Your task to perform on an android device: Is it going to rain tomorrow? Image 0: 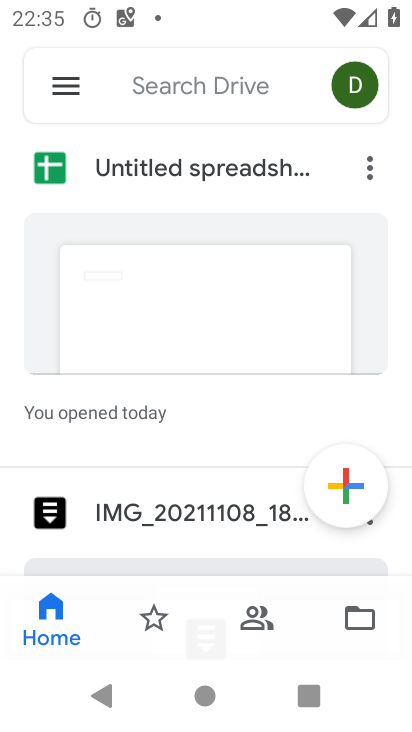
Step 0: press home button
Your task to perform on an android device: Is it going to rain tomorrow? Image 1: 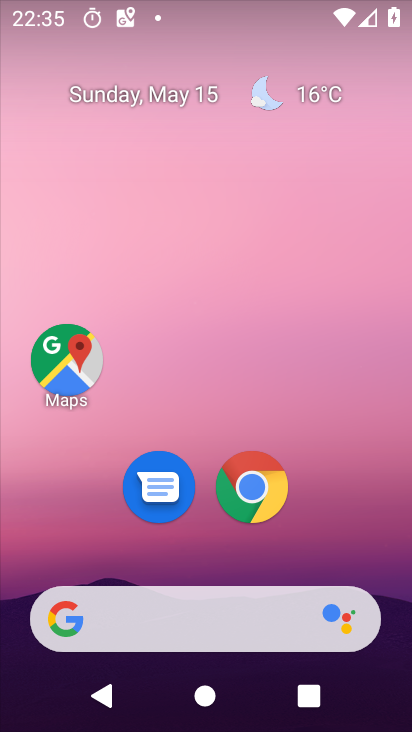
Step 1: click (303, 93)
Your task to perform on an android device: Is it going to rain tomorrow? Image 2: 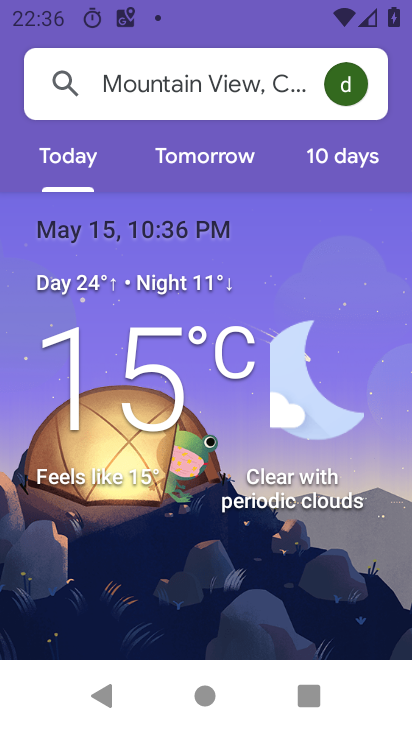
Step 2: click (230, 161)
Your task to perform on an android device: Is it going to rain tomorrow? Image 3: 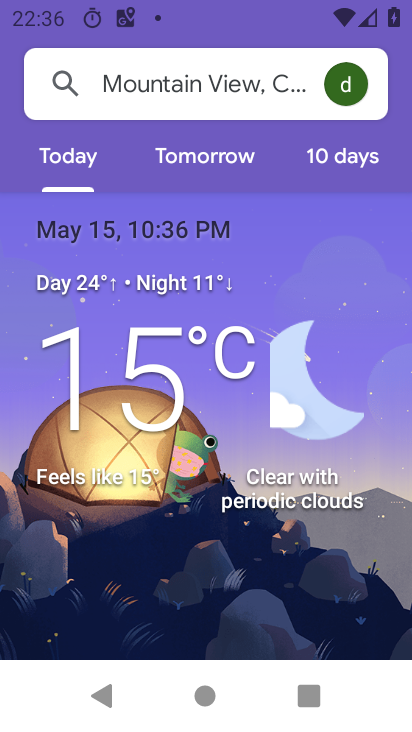
Step 3: click (230, 161)
Your task to perform on an android device: Is it going to rain tomorrow? Image 4: 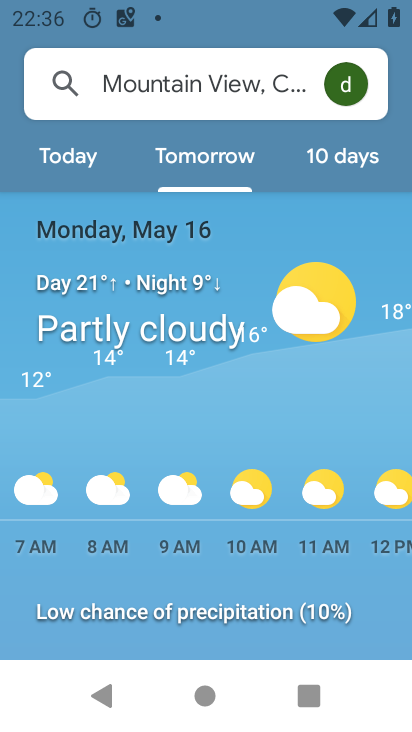
Step 4: task complete